Your task to perform on an android device: turn notification dots off Image 0: 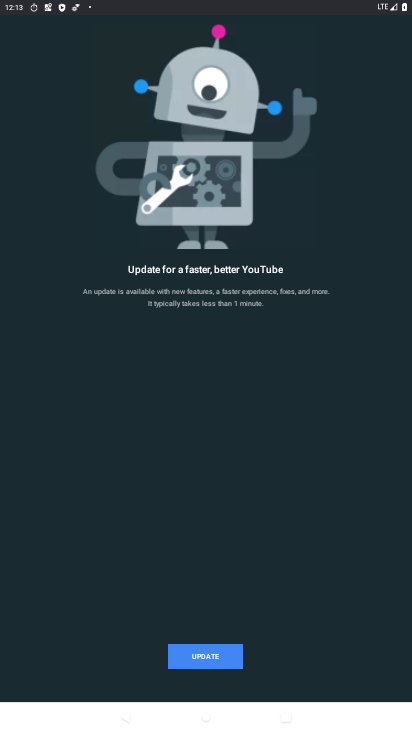
Step 0: press home button
Your task to perform on an android device: turn notification dots off Image 1: 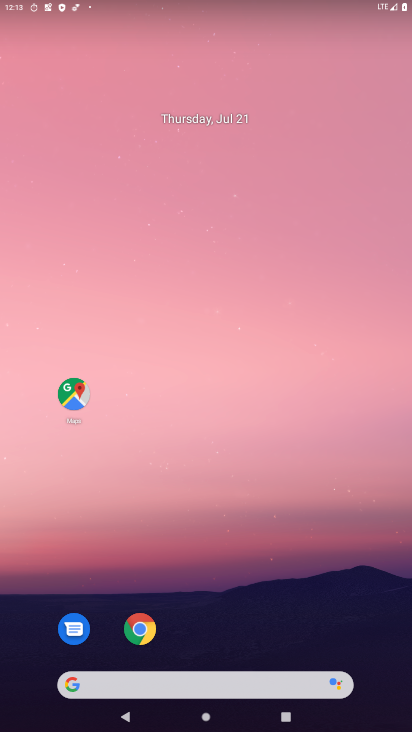
Step 1: drag from (312, 694) to (298, 47)
Your task to perform on an android device: turn notification dots off Image 2: 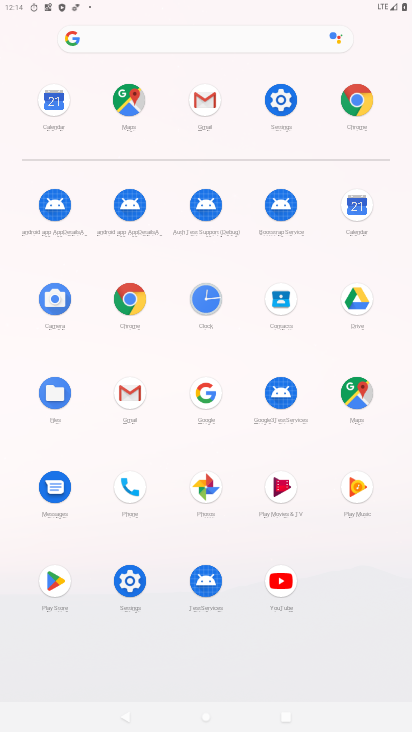
Step 2: click (287, 104)
Your task to perform on an android device: turn notification dots off Image 3: 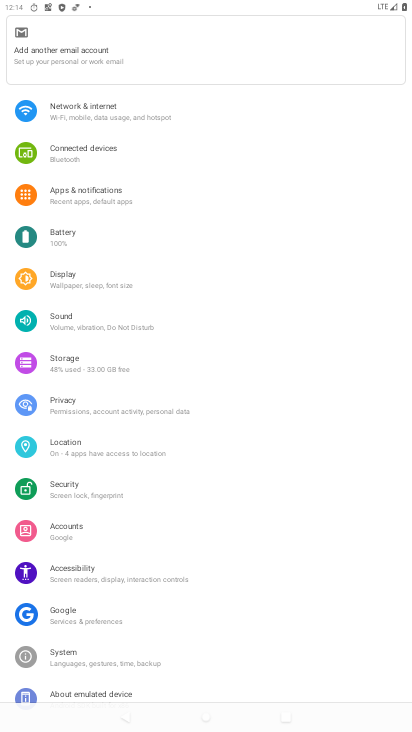
Step 3: click (109, 193)
Your task to perform on an android device: turn notification dots off Image 4: 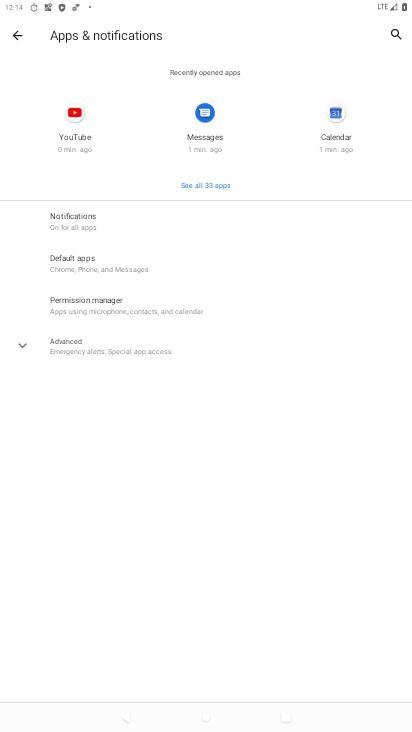
Step 4: click (82, 221)
Your task to perform on an android device: turn notification dots off Image 5: 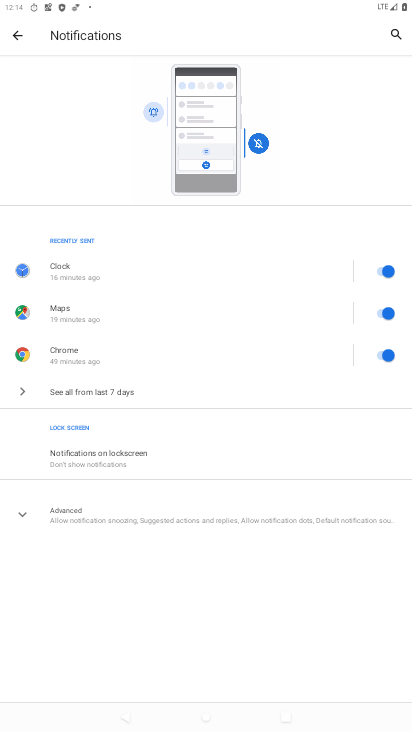
Step 5: click (108, 514)
Your task to perform on an android device: turn notification dots off Image 6: 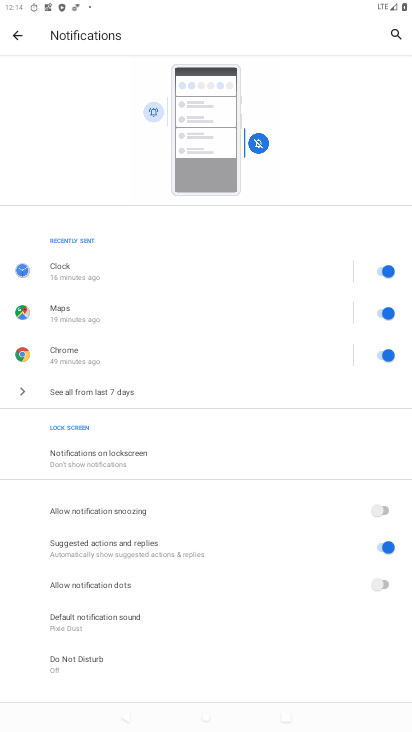
Step 6: task complete